Your task to perform on an android device: make emails show in primary in the gmail app Image 0: 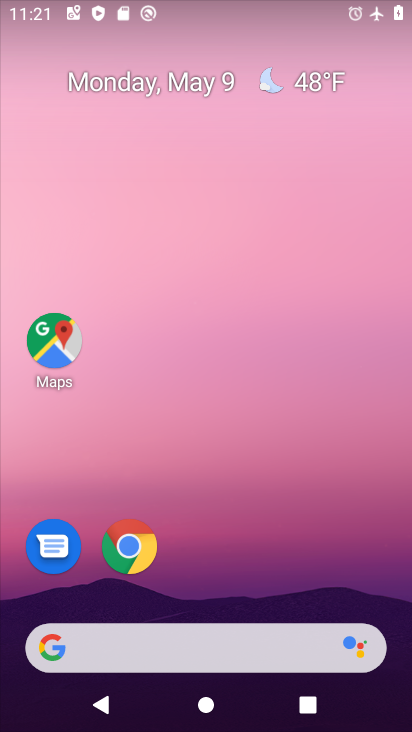
Step 0: drag from (355, 613) to (353, 22)
Your task to perform on an android device: make emails show in primary in the gmail app Image 1: 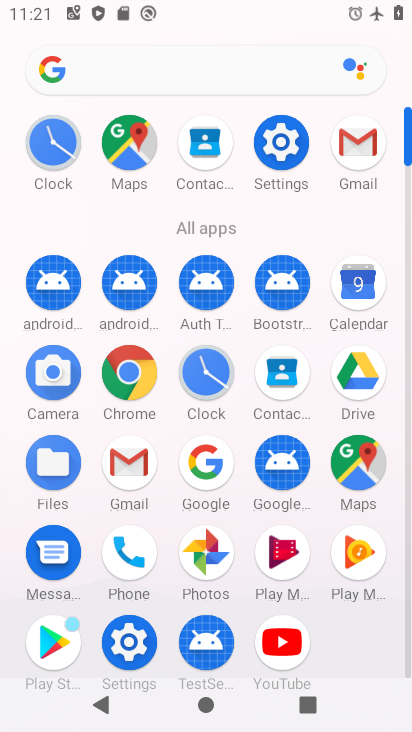
Step 1: click (356, 153)
Your task to perform on an android device: make emails show in primary in the gmail app Image 2: 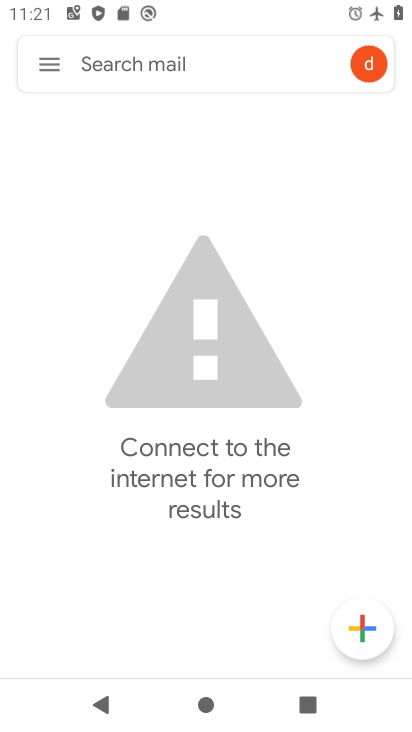
Step 2: click (50, 67)
Your task to perform on an android device: make emails show in primary in the gmail app Image 3: 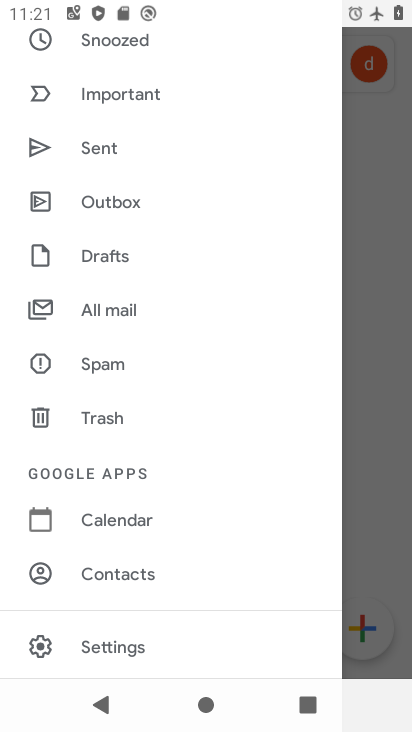
Step 3: click (134, 646)
Your task to perform on an android device: make emails show in primary in the gmail app Image 4: 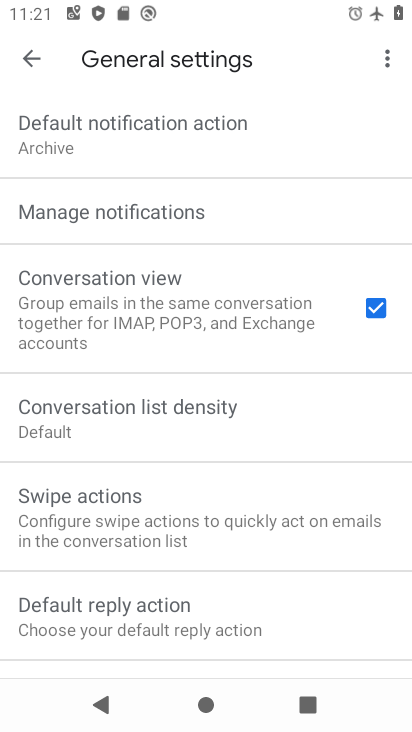
Step 4: click (37, 52)
Your task to perform on an android device: make emails show in primary in the gmail app Image 5: 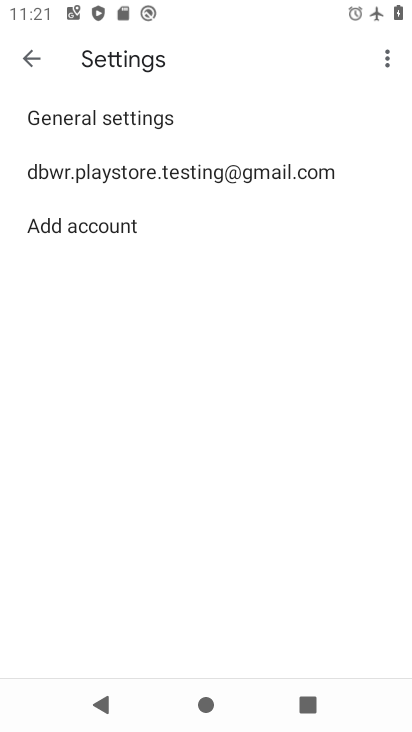
Step 5: click (57, 188)
Your task to perform on an android device: make emails show in primary in the gmail app Image 6: 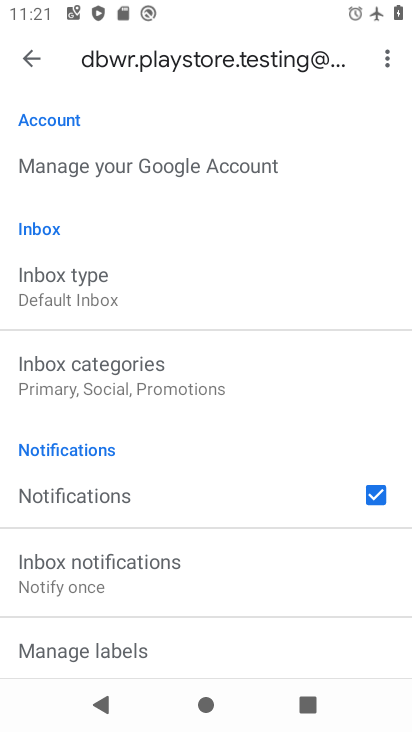
Step 6: click (106, 373)
Your task to perform on an android device: make emails show in primary in the gmail app Image 7: 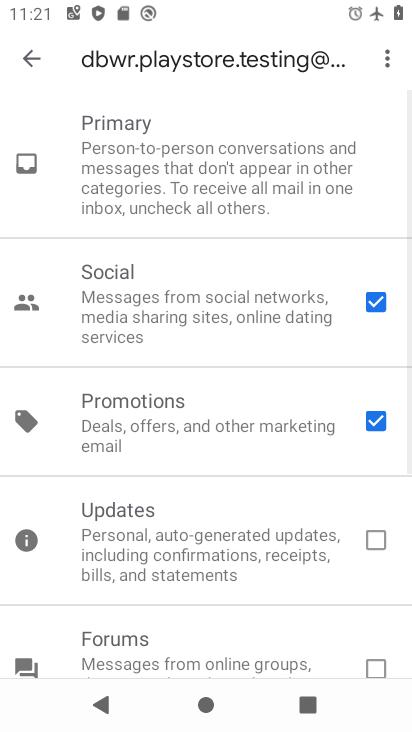
Step 7: click (382, 312)
Your task to perform on an android device: make emails show in primary in the gmail app Image 8: 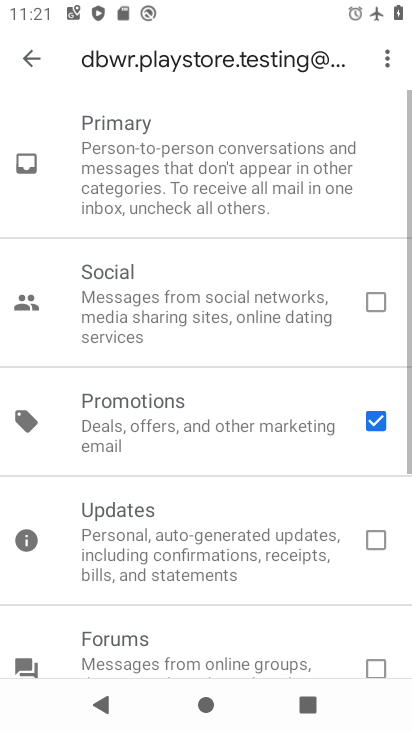
Step 8: click (376, 415)
Your task to perform on an android device: make emails show in primary in the gmail app Image 9: 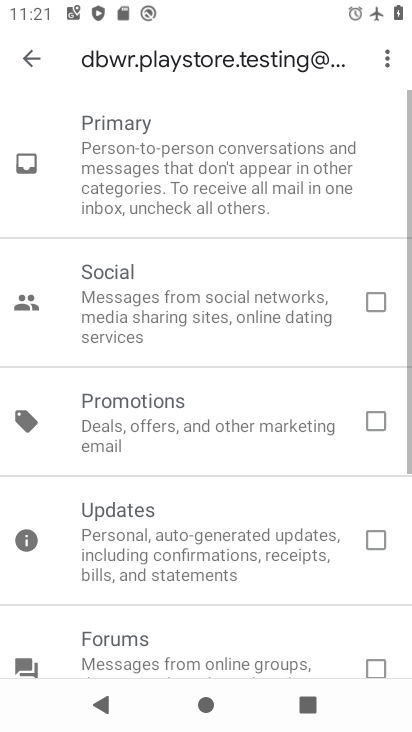
Step 9: drag from (164, 494) to (193, 182)
Your task to perform on an android device: make emails show in primary in the gmail app Image 10: 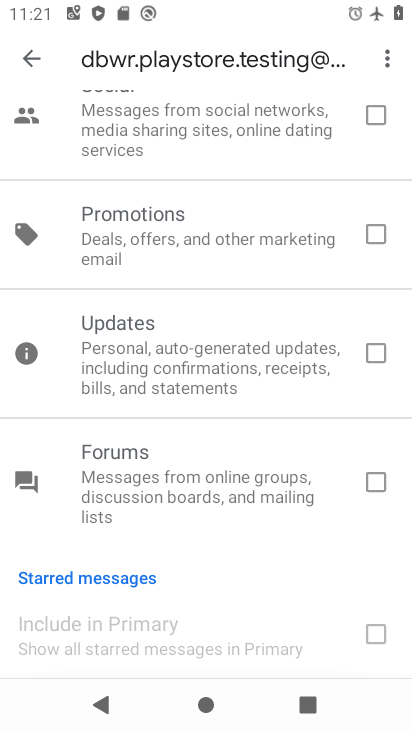
Step 10: drag from (193, 181) to (181, 583)
Your task to perform on an android device: make emails show in primary in the gmail app Image 11: 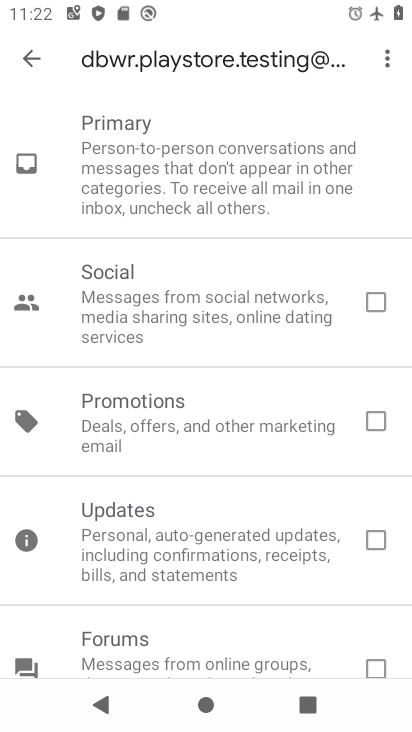
Step 11: click (34, 61)
Your task to perform on an android device: make emails show in primary in the gmail app Image 12: 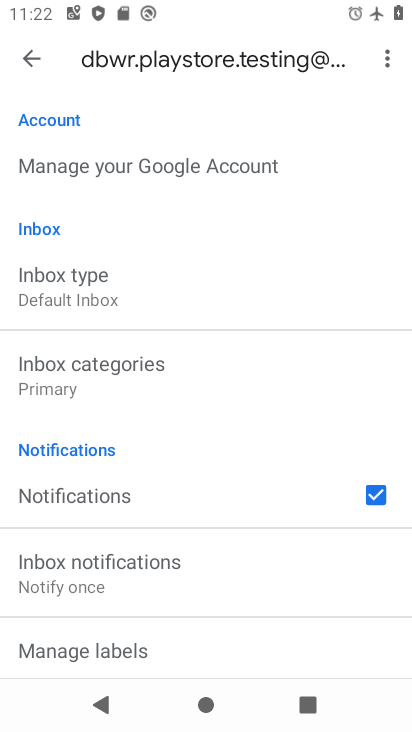
Step 12: task complete